Your task to perform on an android device: Open Google Image 0: 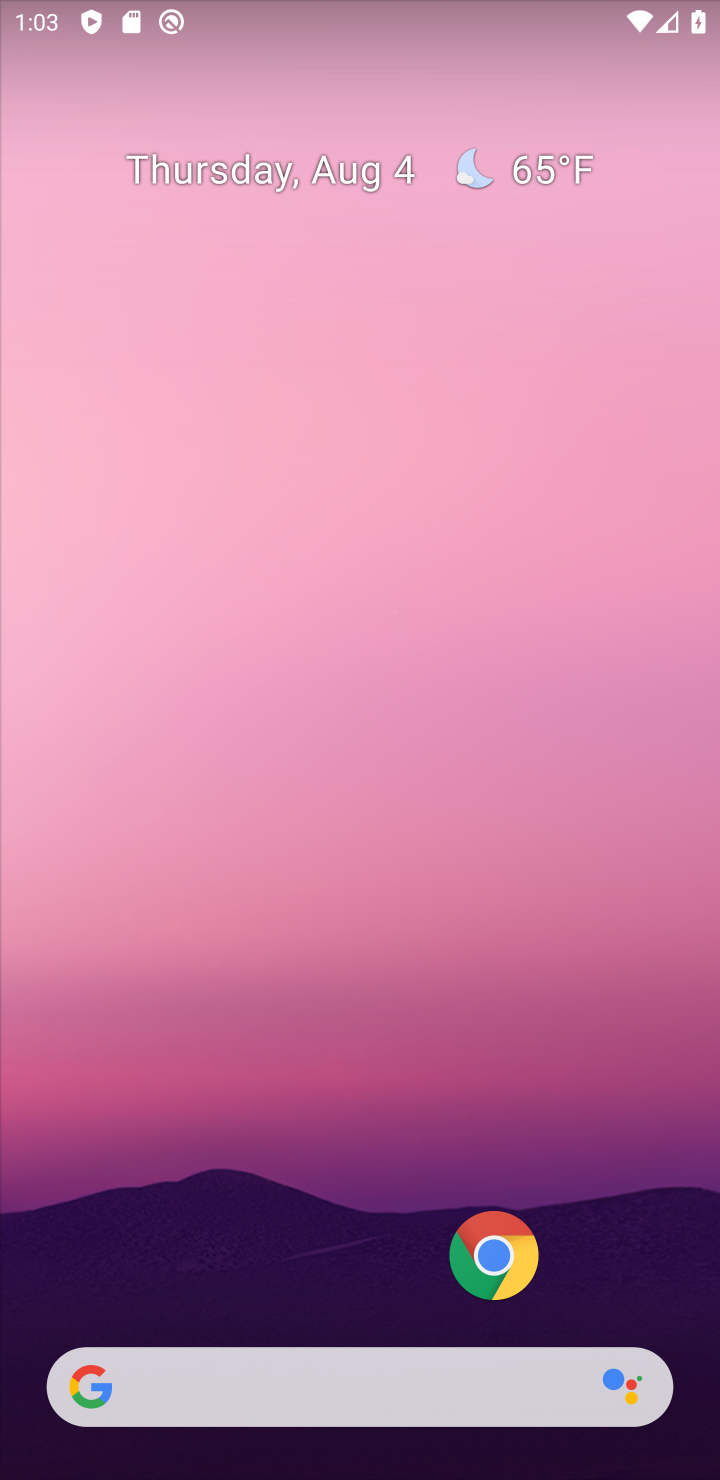
Step 0: drag from (213, 1136) to (337, 70)
Your task to perform on an android device: Open Google Image 1: 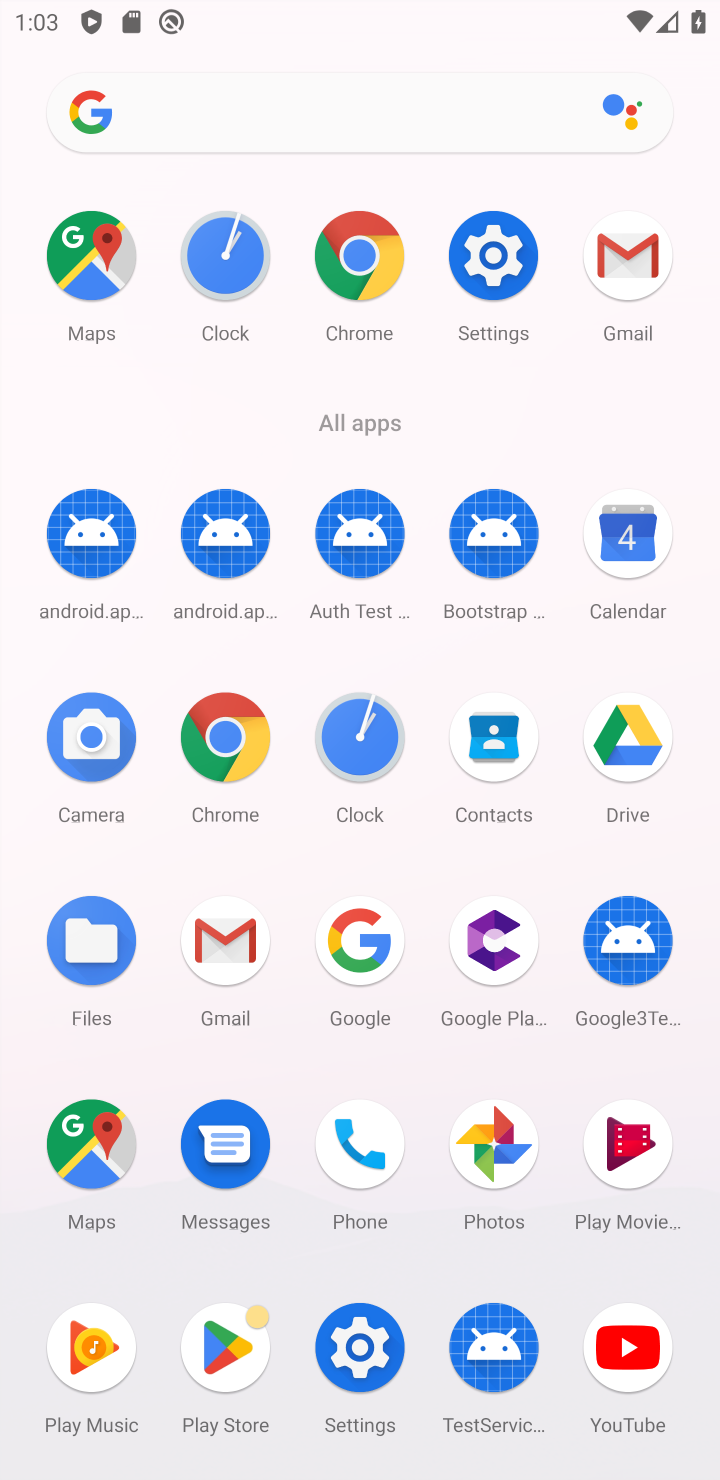
Step 1: click (383, 933)
Your task to perform on an android device: Open Google Image 2: 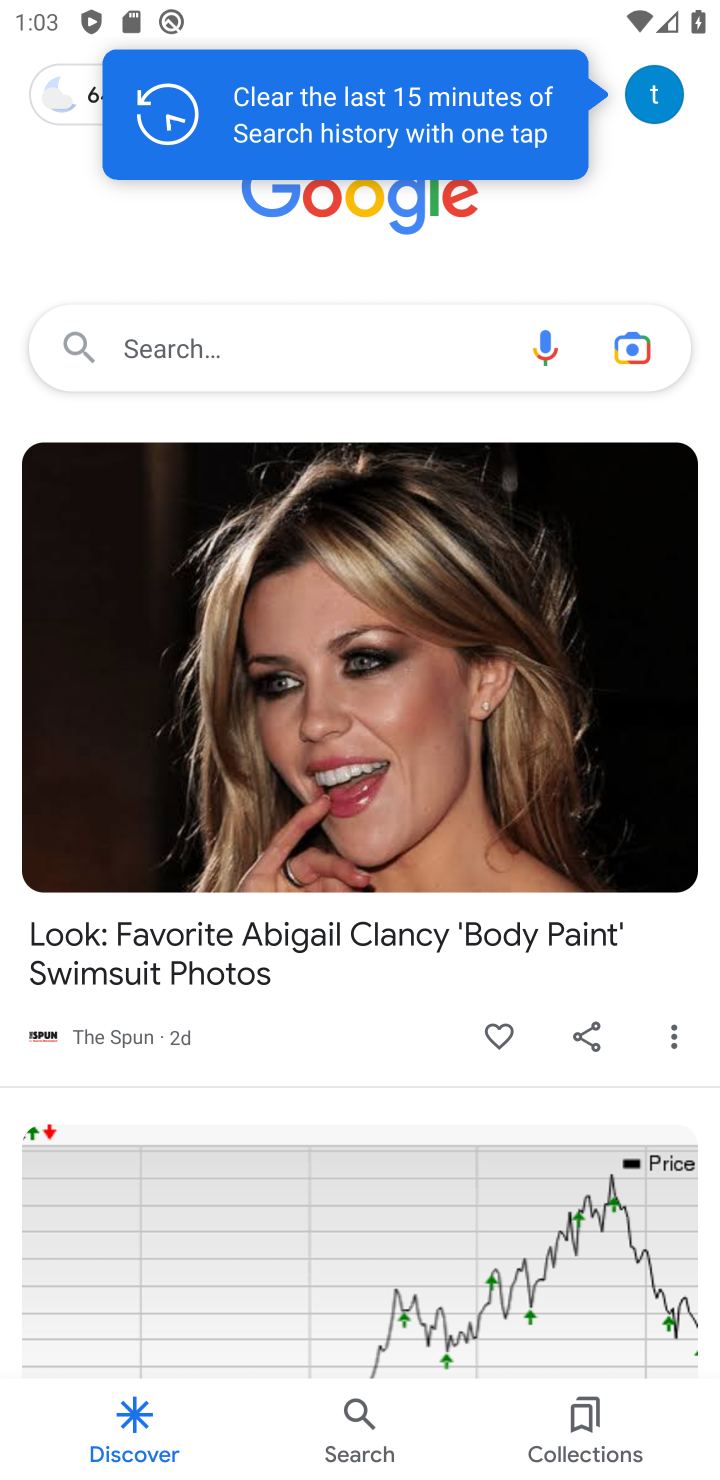
Step 2: task complete